Your task to perform on an android device: toggle javascript in the chrome app Image 0: 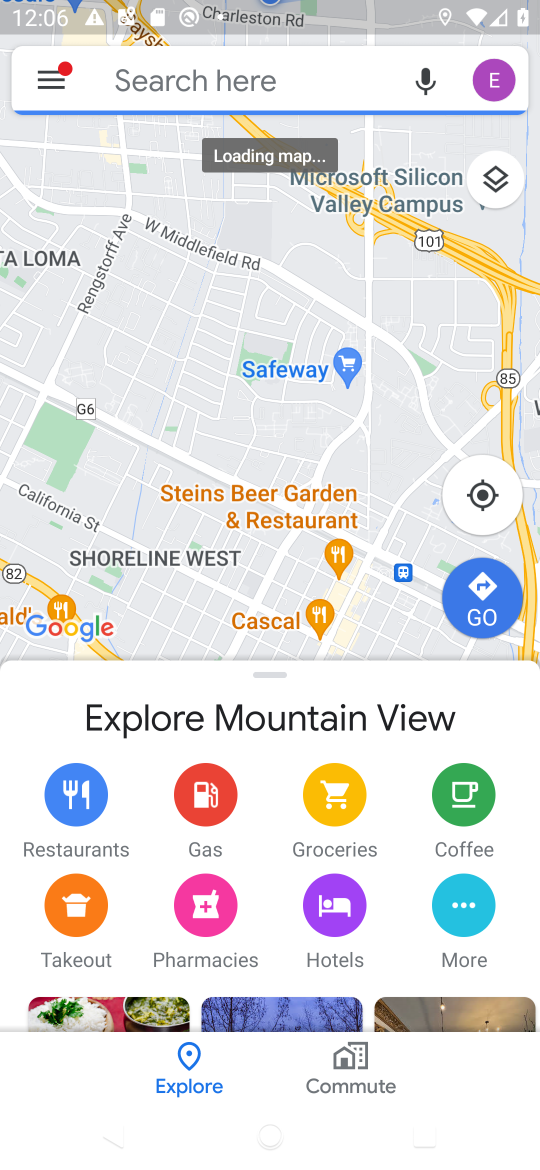
Step 0: press home button
Your task to perform on an android device: toggle javascript in the chrome app Image 1: 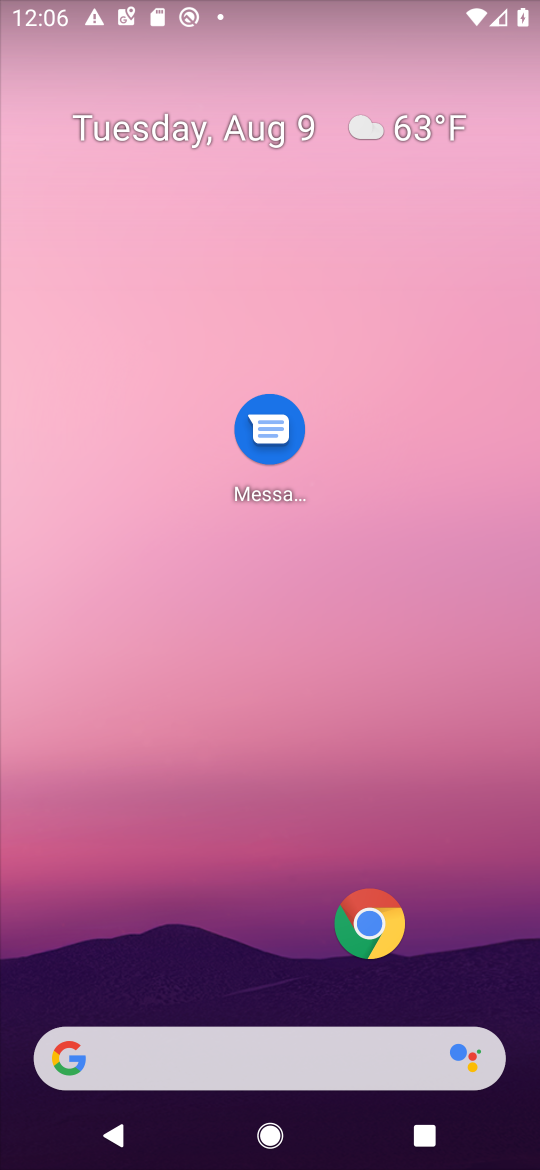
Step 1: click (380, 931)
Your task to perform on an android device: toggle javascript in the chrome app Image 2: 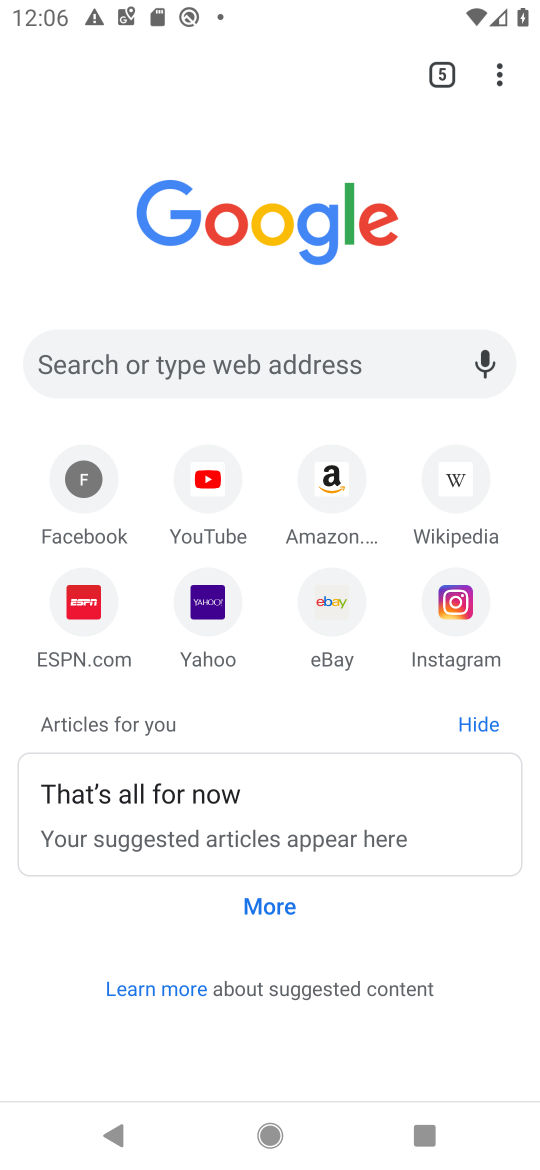
Step 2: click (502, 73)
Your task to perform on an android device: toggle javascript in the chrome app Image 3: 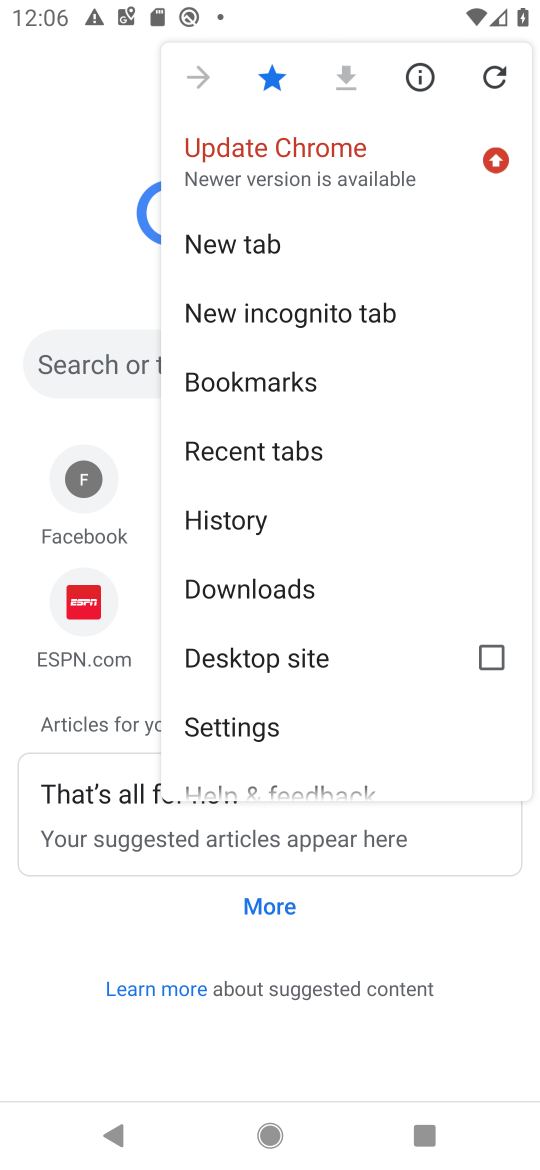
Step 3: click (204, 727)
Your task to perform on an android device: toggle javascript in the chrome app Image 4: 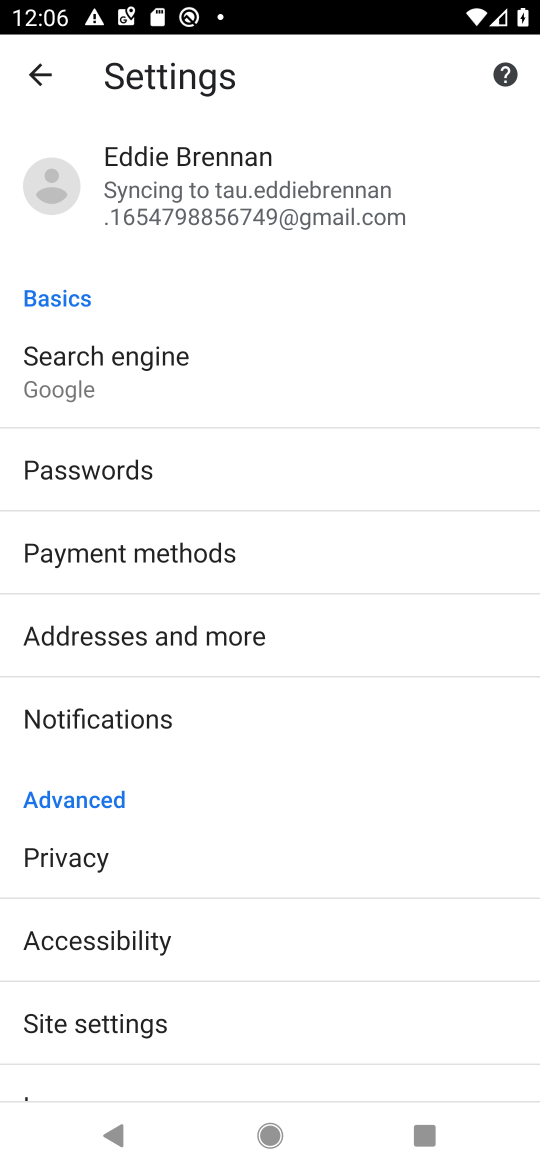
Step 4: click (107, 1029)
Your task to perform on an android device: toggle javascript in the chrome app Image 5: 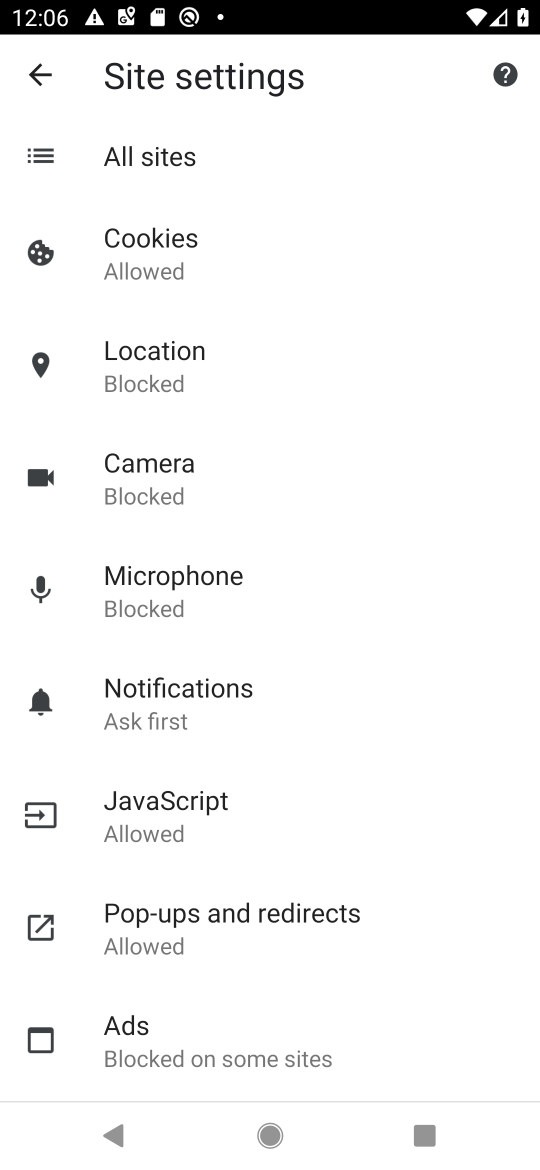
Step 5: click (152, 835)
Your task to perform on an android device: toggle javascript in the chrome app Image 6: 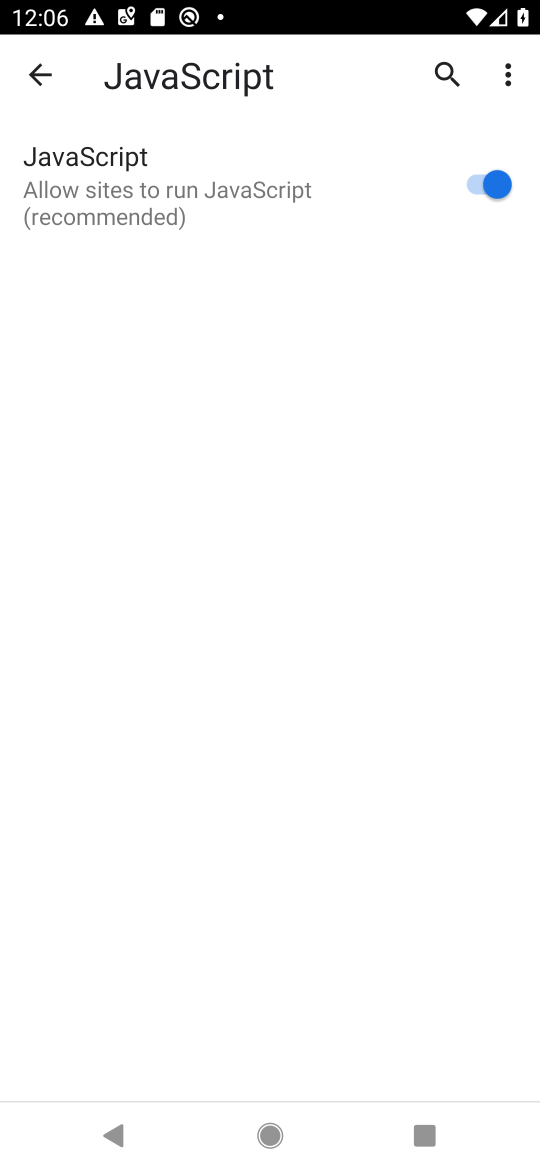
Step 6: task complete